Your task to perform on an android device: add a contact Image 0: 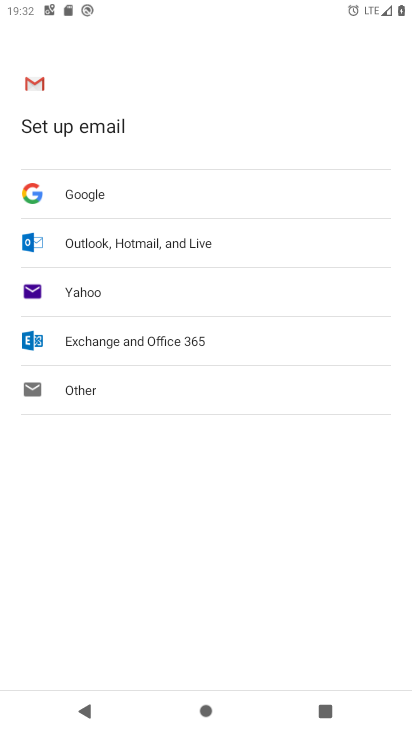
Step 0: press home button
Your task to perform on an android device: add a contact Image 1: 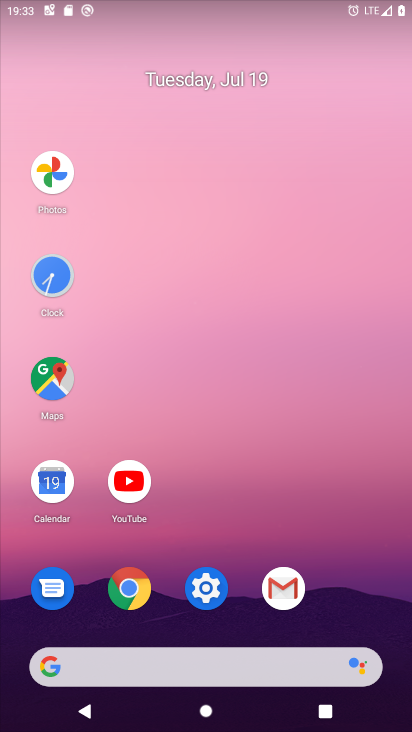
Step 1: drag from (329, 611) to (213, 78)
Your task to perform on an android device: add a contact Image 2: 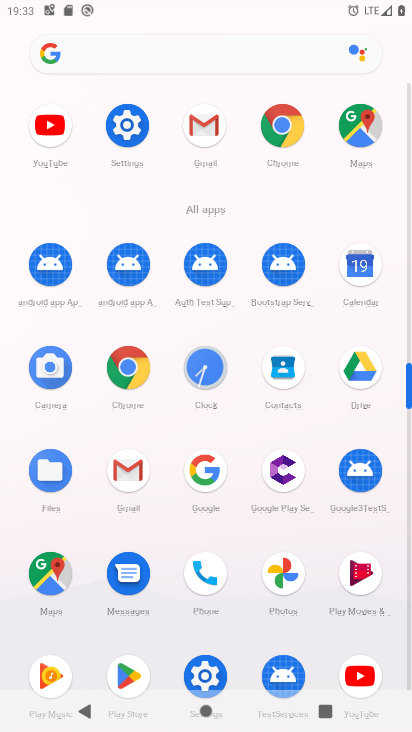
Step 2: click (282, 374)
Your task to perform on an android device: add a contact Image 3: 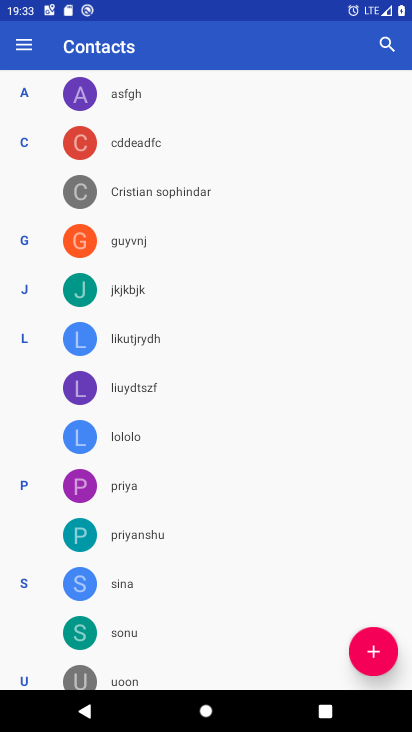
Step 3: click (370, 649)
Your task to perform on an android device: add a contact Image 4: 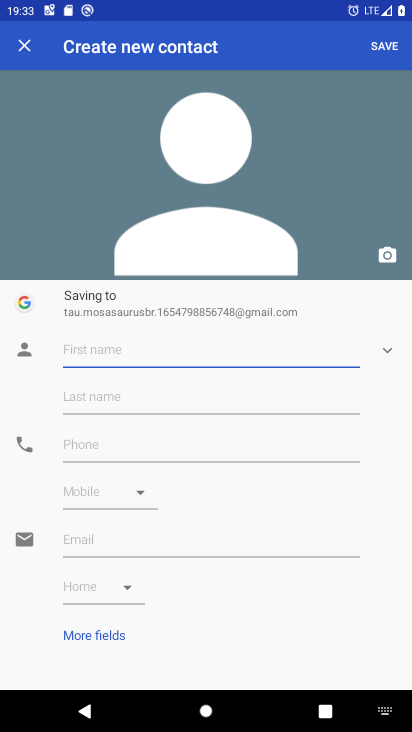
Step 4: type "kkkkkkk"
Your task to perform on an android device: add a contact Image 5: 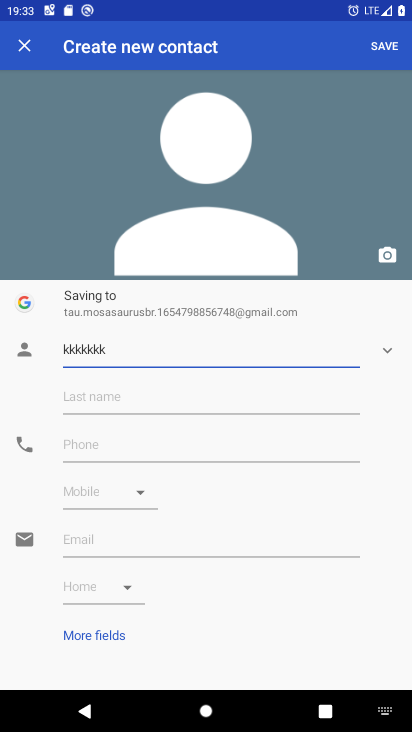
Step 5: click (118, 435)
Your task to perform on an android device: add a contact Image 6: 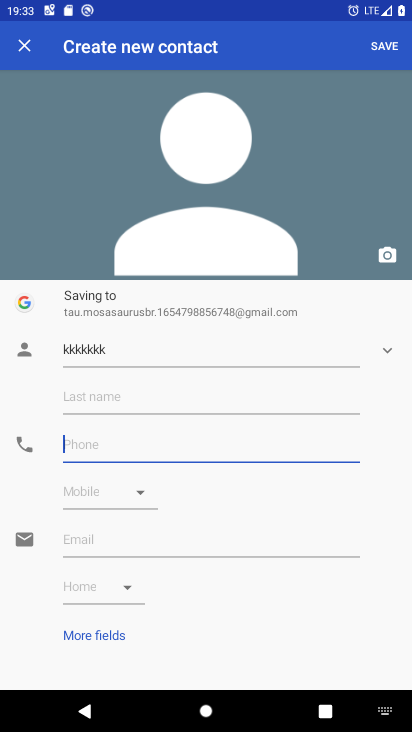
Step 6: type "9999998"
Your task to perform on an android device: add a contact Image 7: 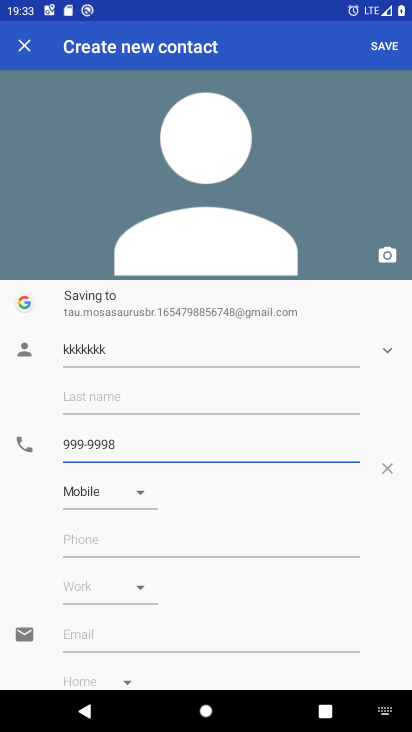
Step 7: click (378, 45)
Your task to perform on an android device: add a contact Image 8: 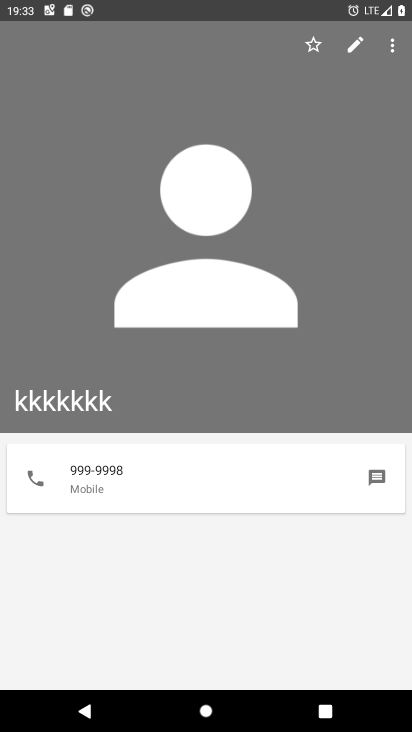
Step 8: task complete